Your task to perform on an android device: Open Yahoo.com Image 0: 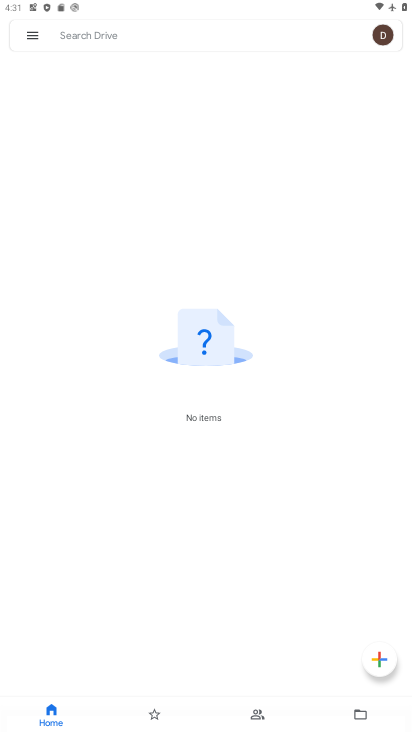
Step 0: press home button
Your task to perform on an android device: Open Yahoo.com Image 1: 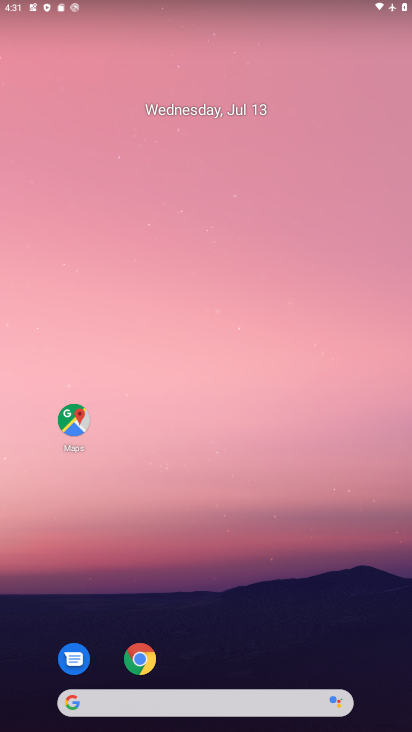
Step 1: click (139, 654)
Your task to perform on an android device: Open Yahoo.com Image 2: 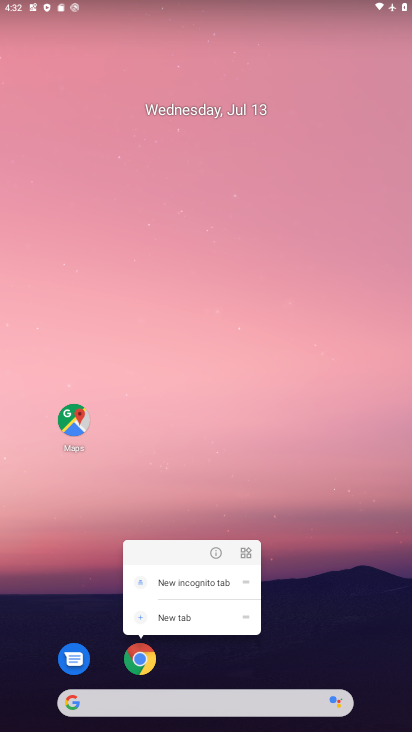
Step 2: click (140, 657)
Your task to perform on an android device: Open Yahoo.com Image 3: 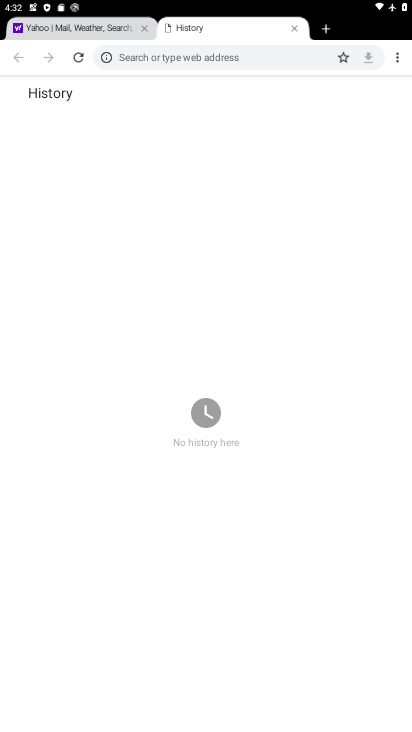
Step 3: click (322, 32)
Your task to perform on an android device: Open Yahoo.com Image 4: 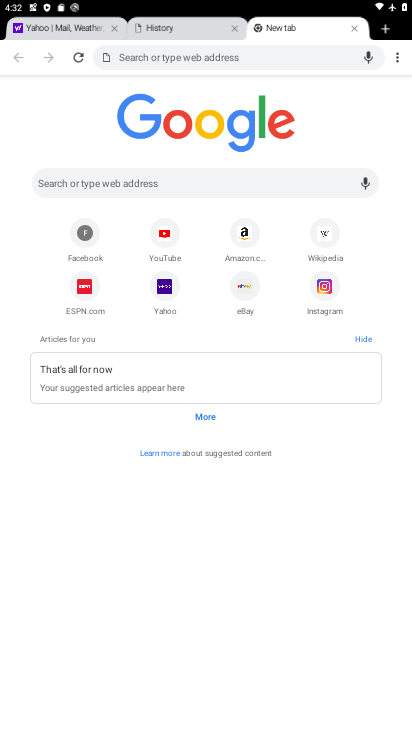
Step 4: click (165, 283)
Your task to perform on an android device: Open Yahoo.com Image 5: 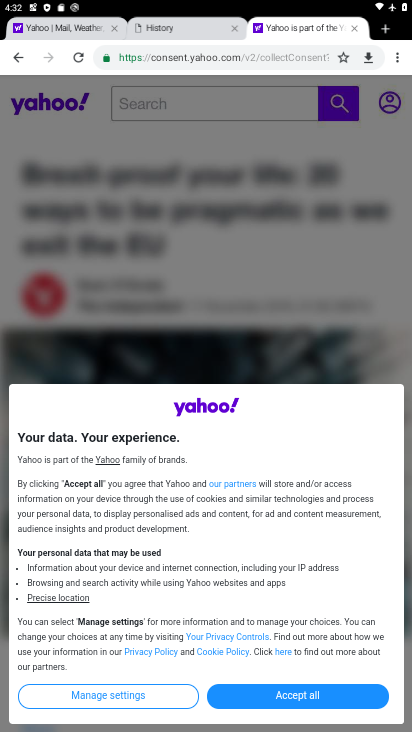
Step 5: click (299, 694)
Your task to perform on an android device: Open Yahoo.com Image 6: 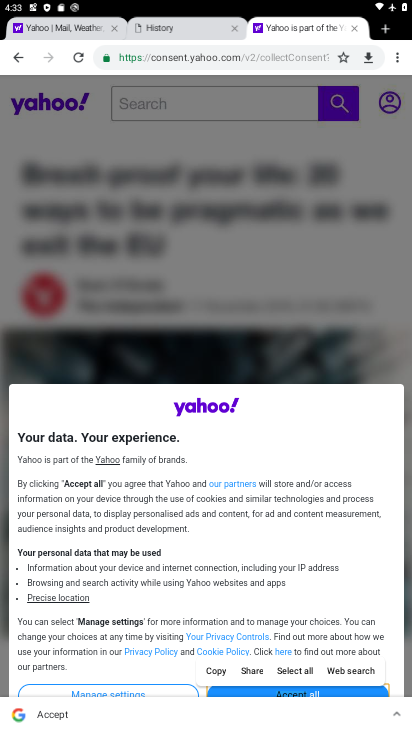
Step 6: task complete